Your task to perform on an android device: Open Google Maps and go to "Timeline" Image 0: 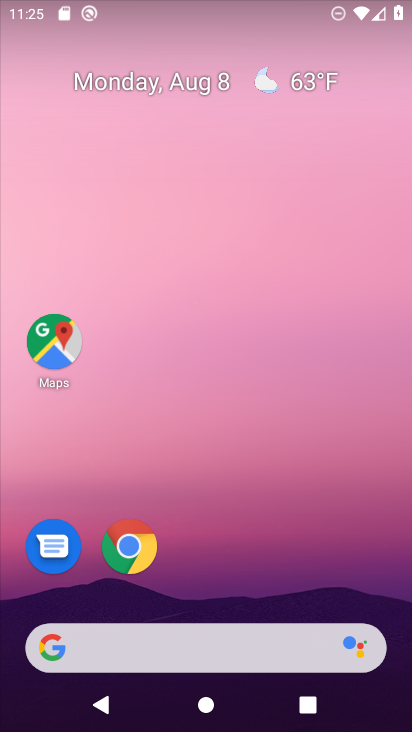
Step 0: press home button
Your task to perform on an android device: Open Google Maps and go to "Timeline" Image 1: 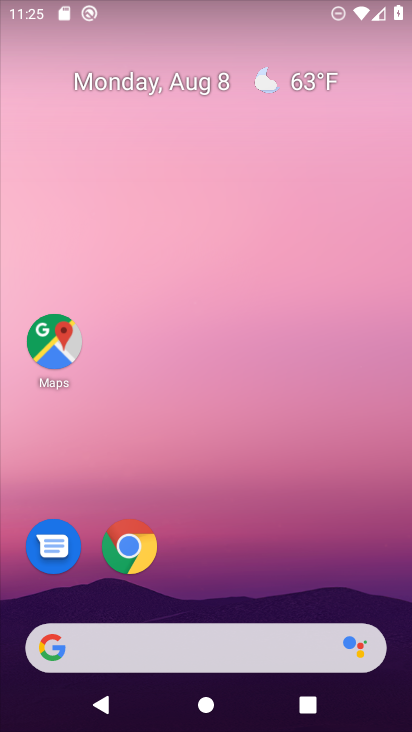
Step 1: drag from (228, 605) to (233, 54)
Your task to perform on an android device: Open Google Maps and go to "Timeline" Image 2: 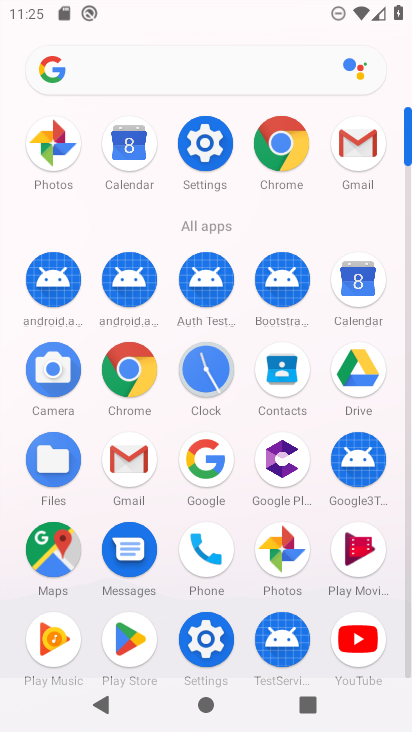
Step 2: click (50, 546)
Your task to perform on an android device: Open Google Maps and go to "Timeline" Image 3: 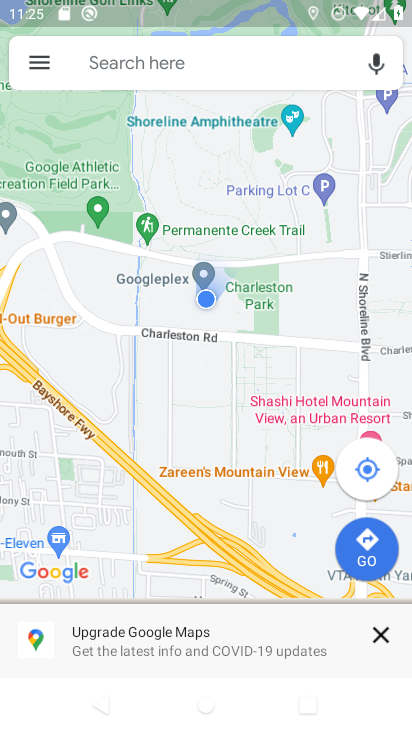
Step 3: click (31, 56)
Your task to perform on an android device: Open Google Maps and go to "Timeline" Image 4: 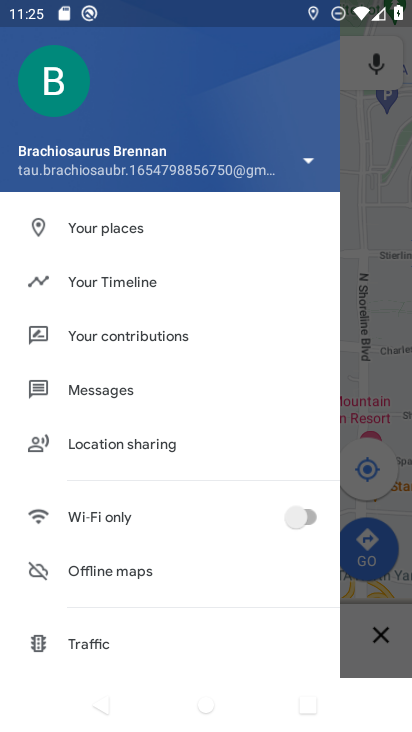
Step 4: click (58, 277)
Your task to perform on an android device: Open Google Maps and go to "Timeline" Image 5: 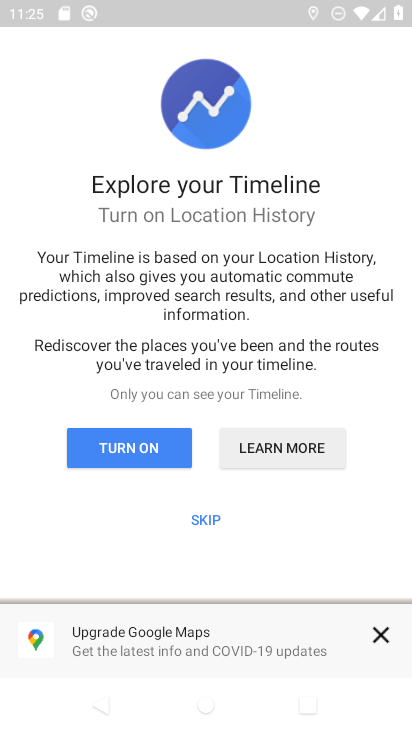
Step 5: click (207, 513)
Your task to perform on an android device: Open Google Maps and go to "Timeline" Image 6: 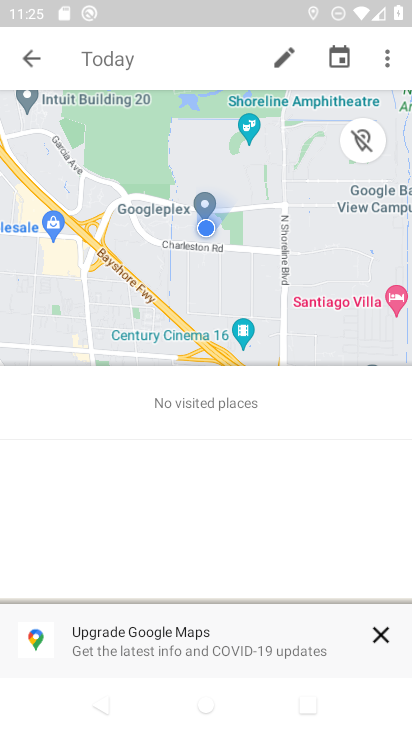
Step 6: click (377, 629)
Your task to perform on an android device: Open Google Maps and go to "Timeline" Image 7: 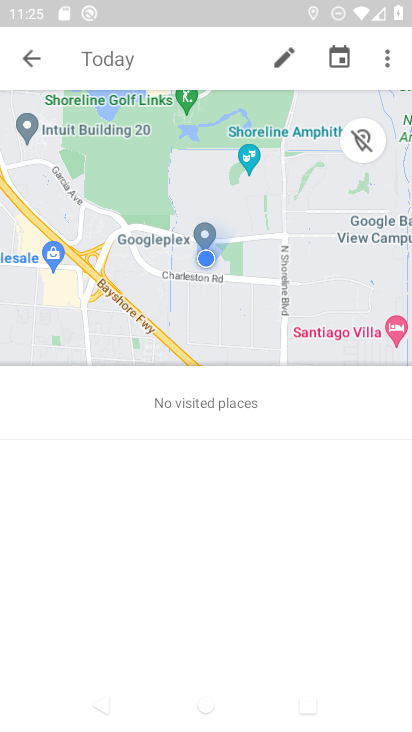
Step 7: task complete